Your task to perform on an android device: turn on improve location accuracy Image 0: 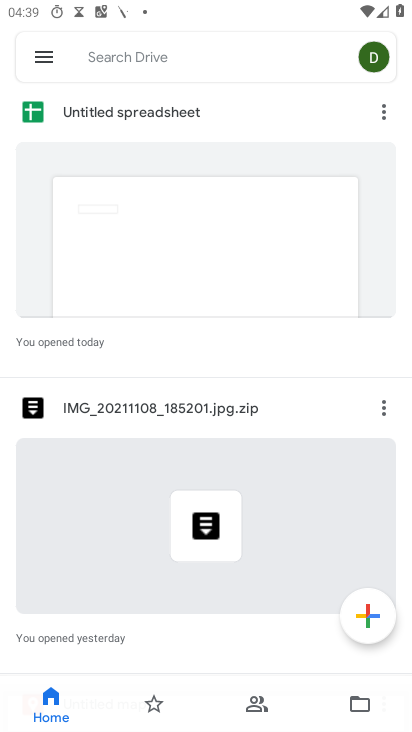
Step 0: press home button
Your task to perform on an android device: turn on improve location accuracy Image 1: 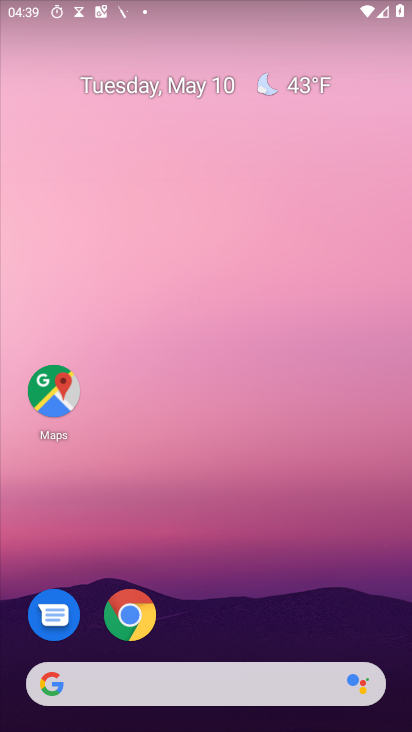
Step 1: drag from (262, 664) to (205, 77)
Your task to perform on an android device: turn on improve location accuracy Image 2: 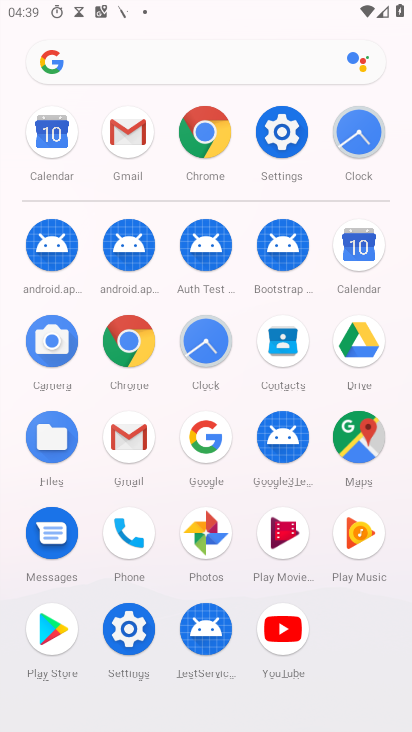
Step 2: click (286, 135)
Your task to perform on an android device: turn on improve location accuracy Image 3: 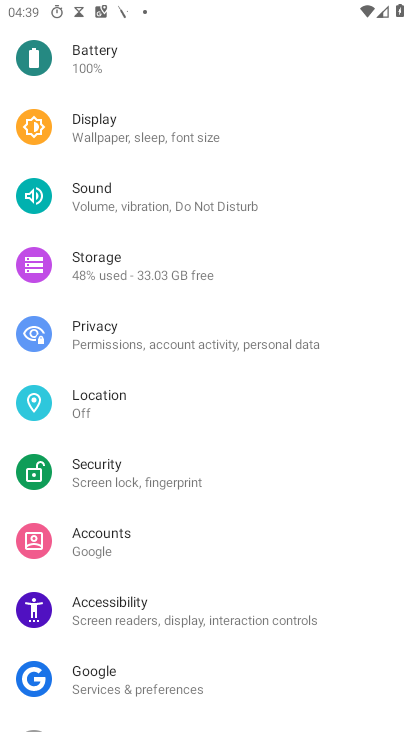
Step 3: click (155, 405)
Your task to perform on an android device: turn on improve location accuracy Image 4: 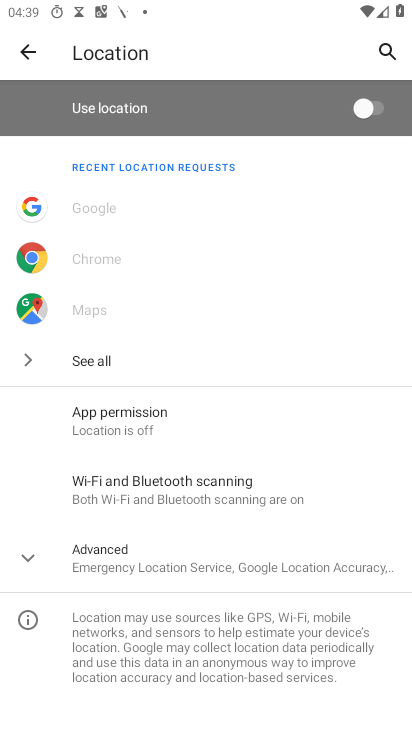
Step 4: click (186, 557)
Your task to perform on an android device: turn on improve location accuracy Image 5: 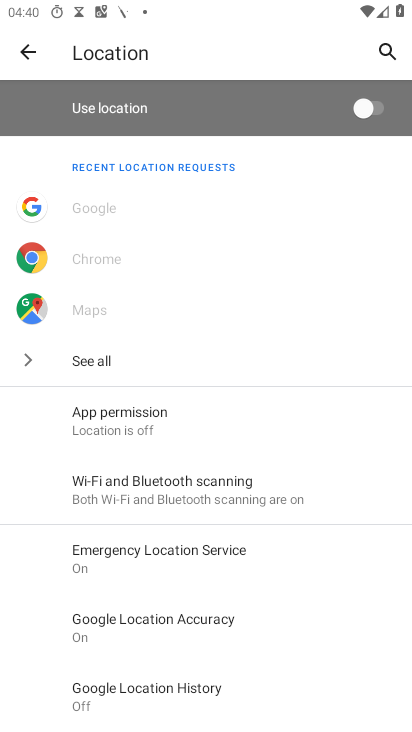
Step 5: click (187, 623)
Your task to perform on an android device: turn on improve location accuracy Image 6: 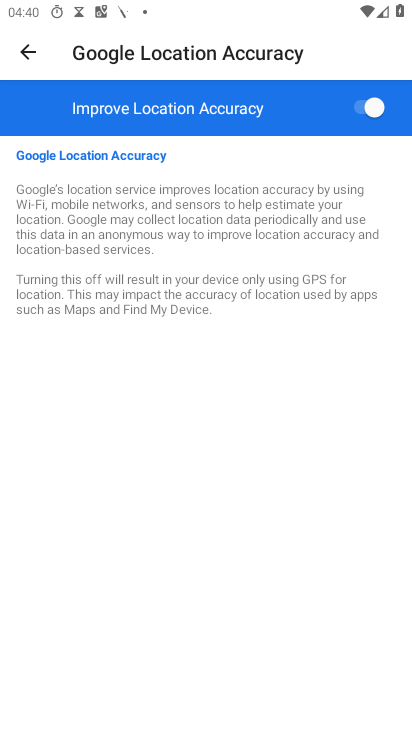
Step 6: task complete